Your task to perform on an android device: open sync settings in chrome Image 0: 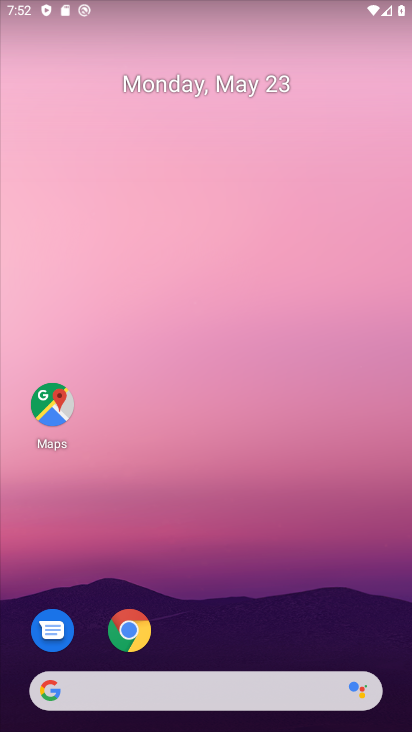
Step 0: click (138, 643)
Your task to perform on an android device: open sync settings in chrome Image 1: 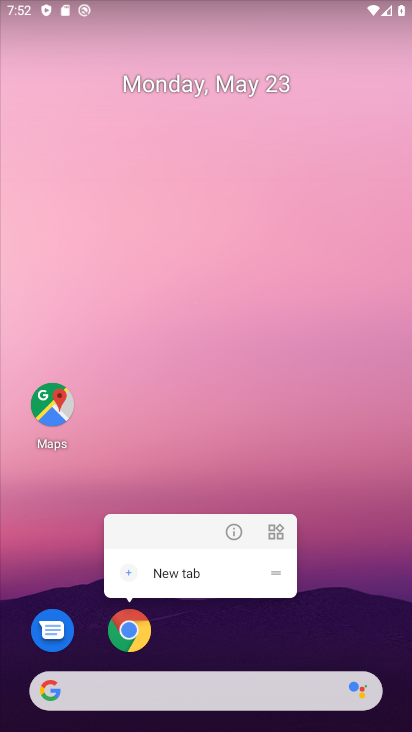
Step 1: click (121, 629)
Your task to perform on an android device: open sync settings in chrome Image 2: 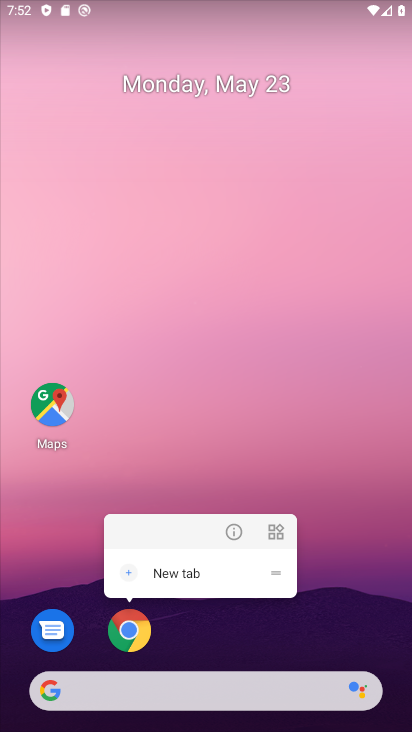
Step 2: click (122, 635)
Your task to perform on an android device: open sync settings in chrome Image 3: 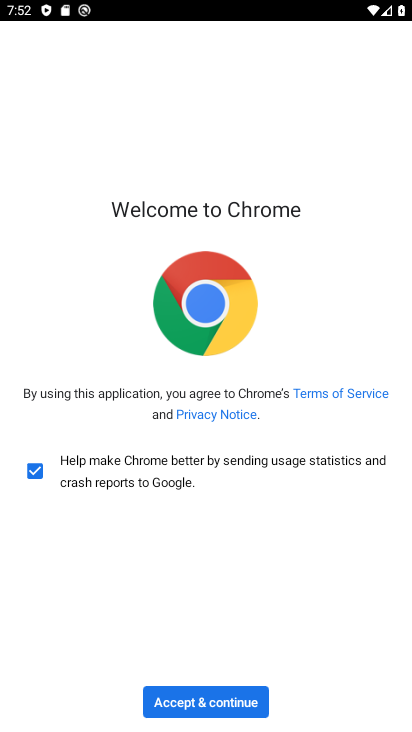
Step 3: click (155, 718)
Your task to perform on an android device: open sync settings in chrome Image 4: 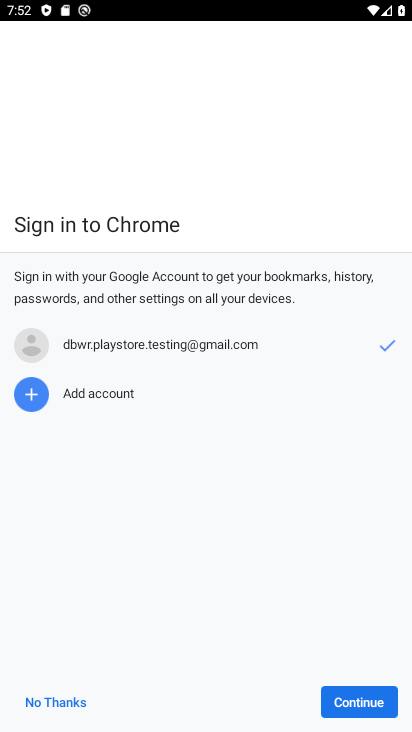
Step 4: click (357, 705)
Your task to perform on an android device: open sync settings in chrome Image 5: 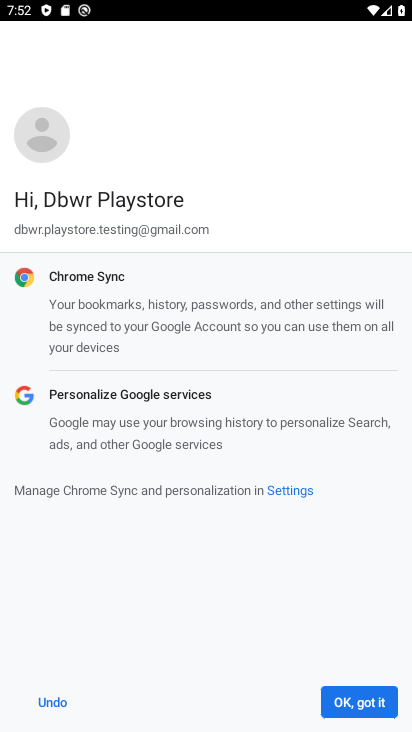
Step 5: click (349, 698)
Your task to perform on an android device: open sync settings in chrome Image 6: 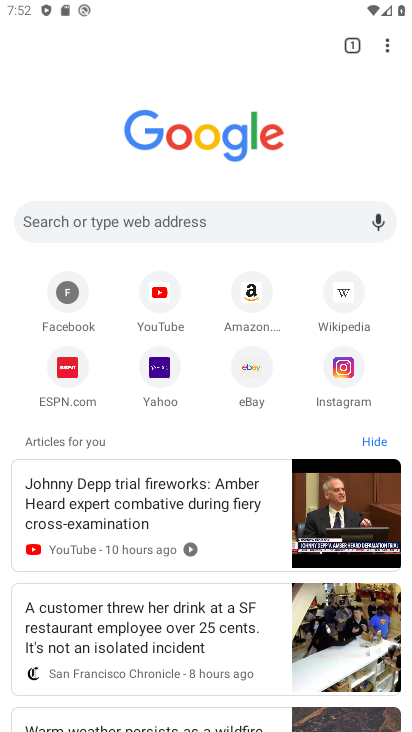
Step 6: click (385, 47)
Your task to perform on an android device: open sync settings in chrome Image 7: 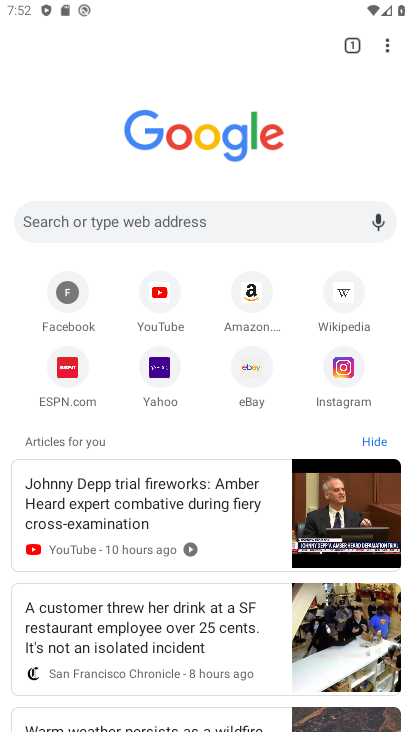
Step 7: click (391, 50)
Your task to perform on an android device: open sync settings in chrome Image 8: 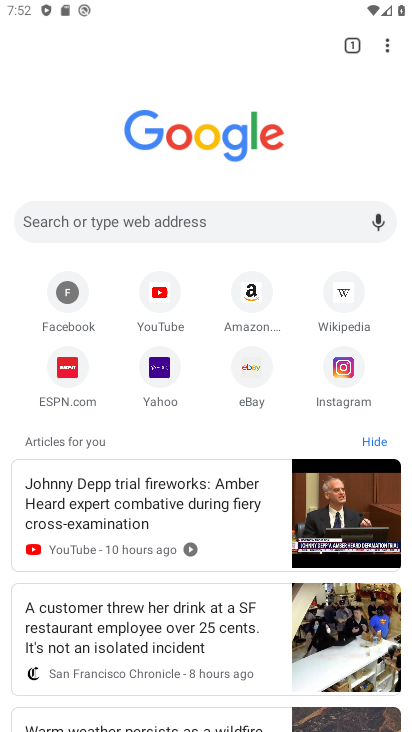
Step 8: click (386, 45)
Your task to perform on an android device: open sync settings in chrome Image 9: 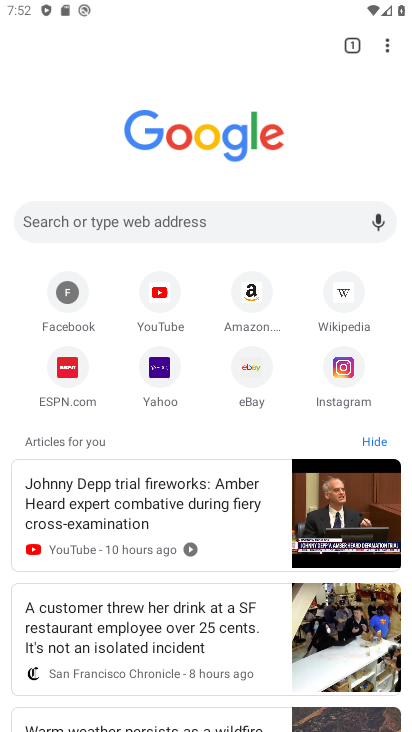
Step 9: click (390, 46)
Your task to perform on an android device: open sync settings in chrome Image 10: 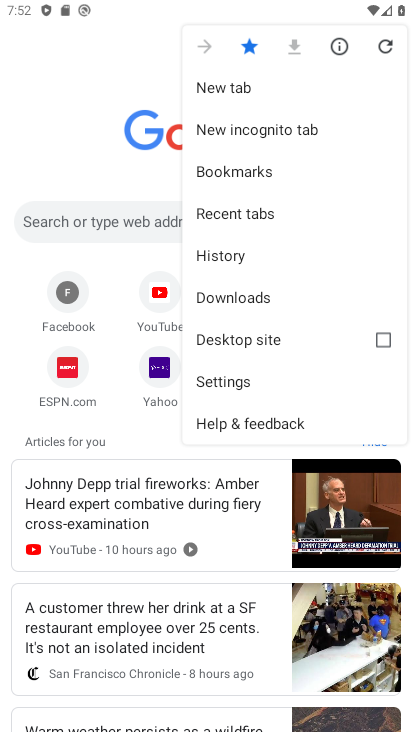
Step 10: click (238, 380)
Your task to perform on an android device: open sync settings in chrome Image 11: 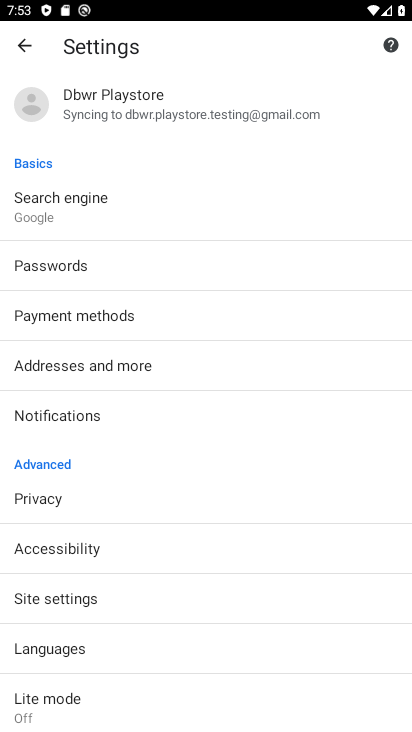
Step 11: click (160, 107)
Your task to perform on an android device: open sync settings in chrome Image 12: 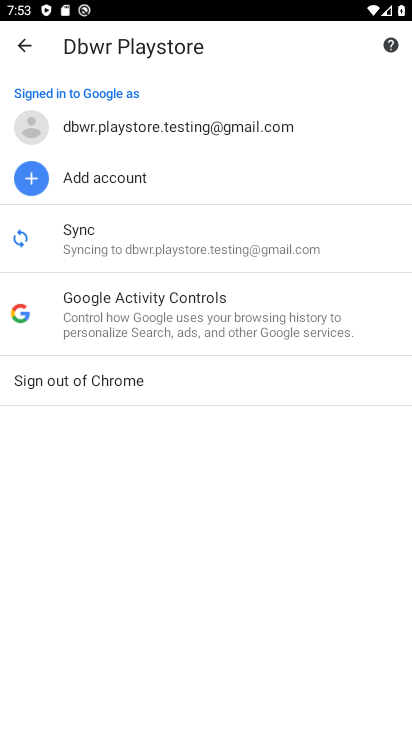
Step 12: click (84, 246)
Your task to perform on an android device: open sync settings in chrome Image 13: 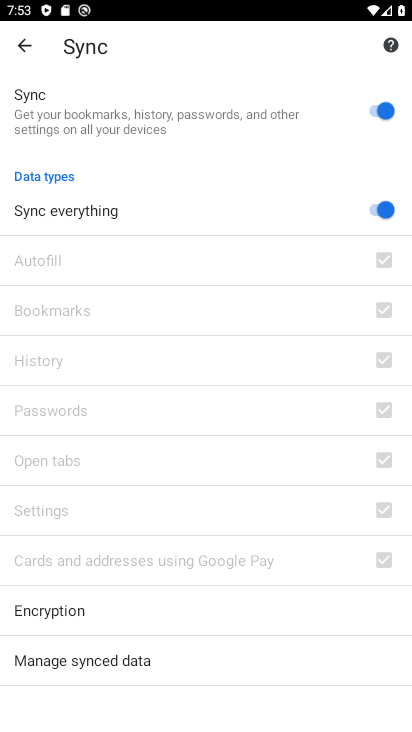
Step 13: task complete